Your task to perform on an android device: Check out the best rated electric trimmers on Lowe's Image 0: 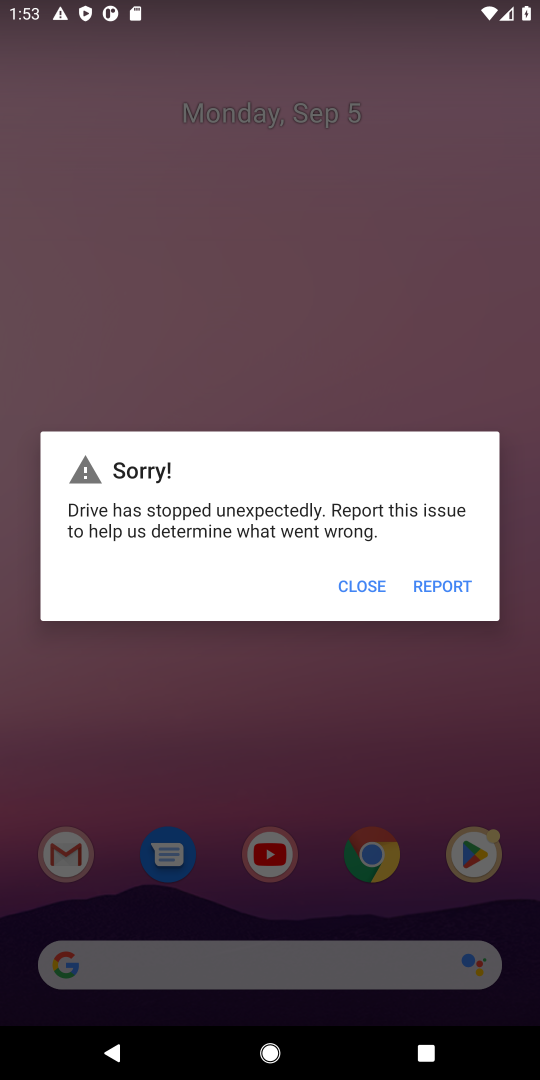
Step 0: press home button
Your task to perform on an android device: Check out the best rated electric trimmers on Lowe's Image 1: 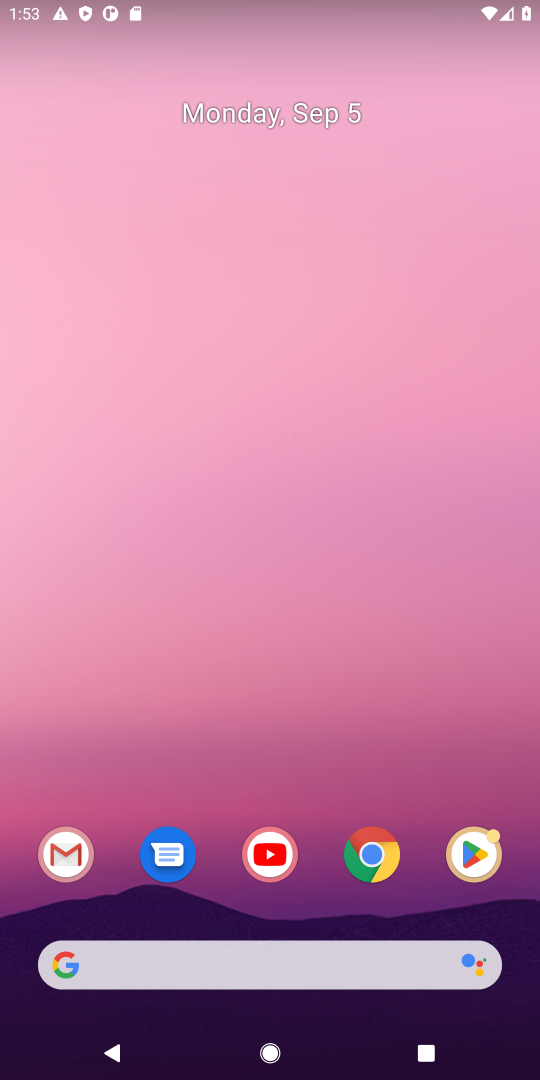
Step 1: click (355, 959)
Your task to perform on an android device: Check out the best rated electric trimmers on Lowe's Image 2: 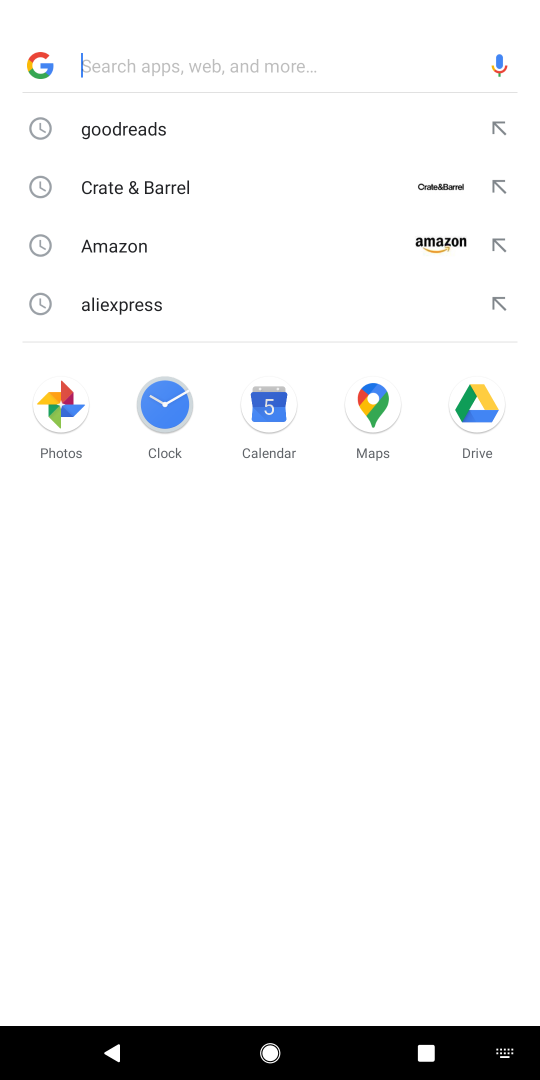
Step 2: type "lowes"
Your task to perform on an android device: Check out the best rated electric trimmers on Lowe's Image 3: 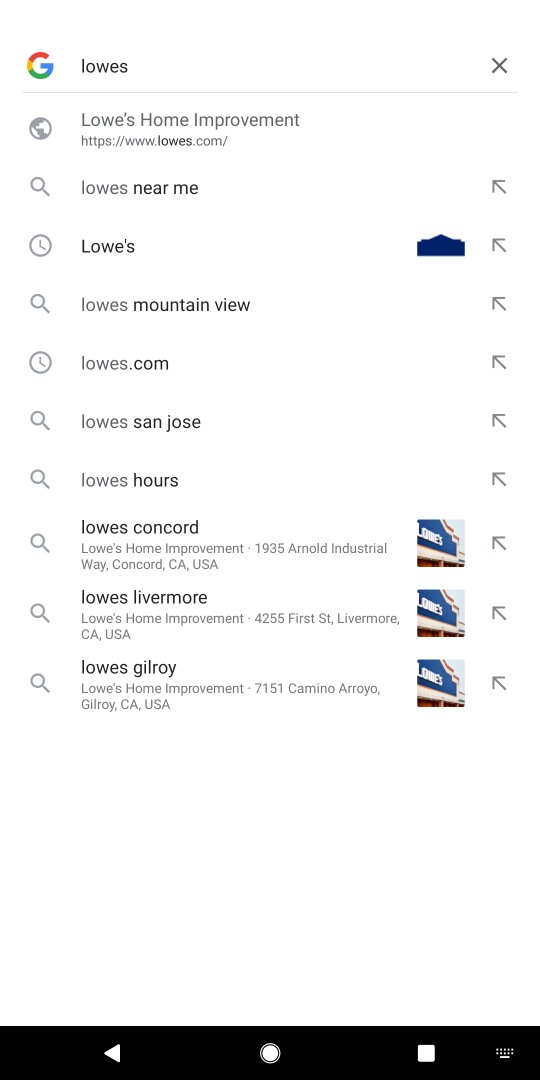
Step 3: press enter
Your task to perform on an android device: Check out the best rated electric trimmers on Lowe's Image 4: 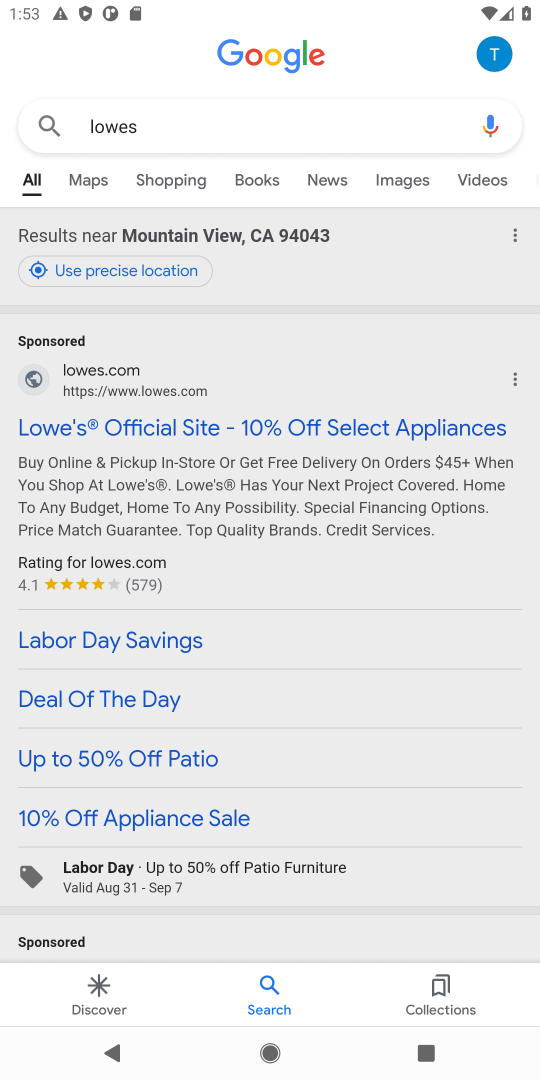
Step 4: click (328, 437)
Your task to perform on an android device: Check out the best rated electric trimmers on Lowe's Image 5: 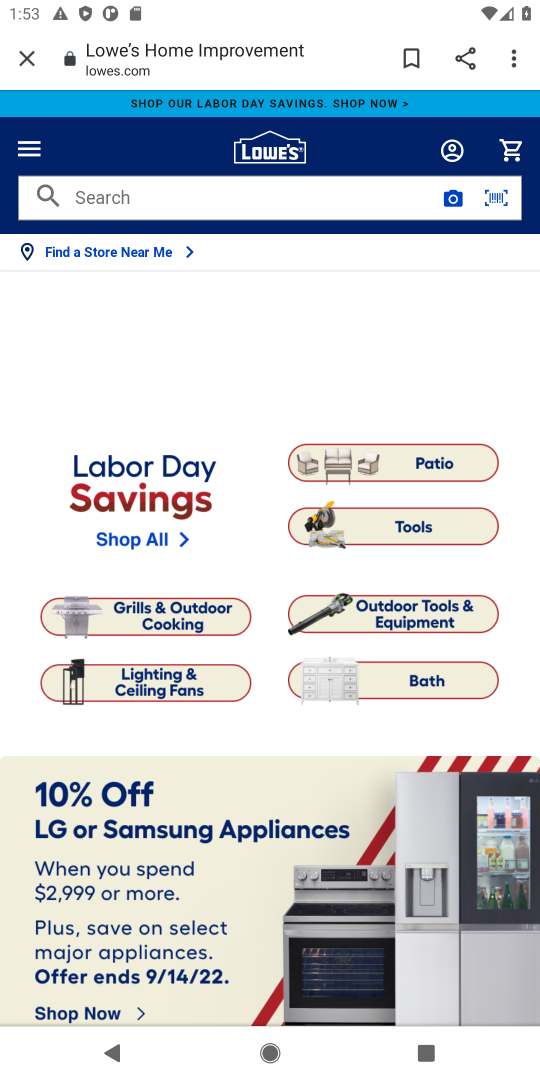
Step 5: click (197, 190)
Your task to perform on an android device: Check out the best rated electric trimmers on Lowe's Image 6: 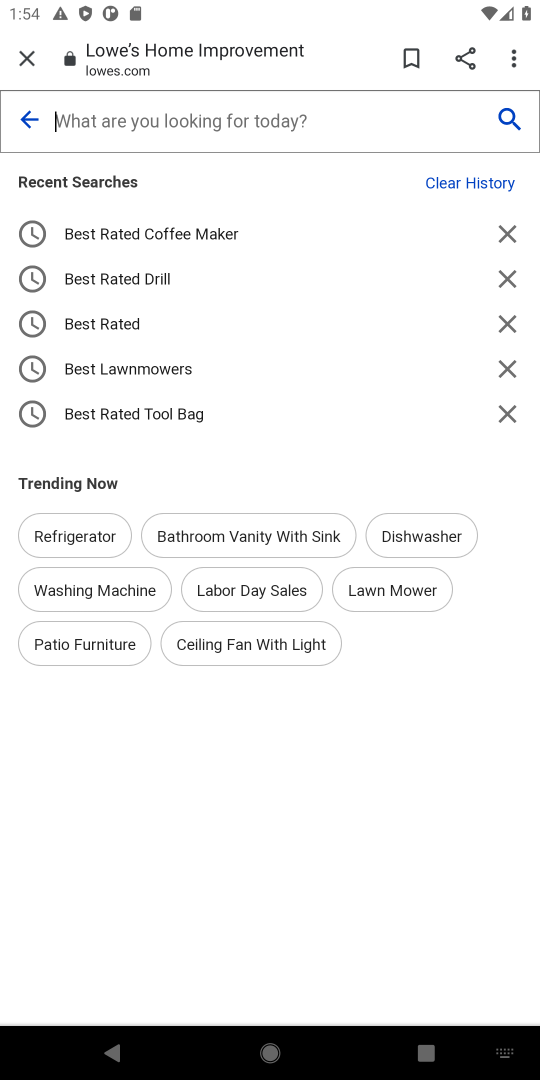
Step 6: press enter
Your task to perform on an android device: Check out the best rated electric trimmers on Lowe's Image 7: 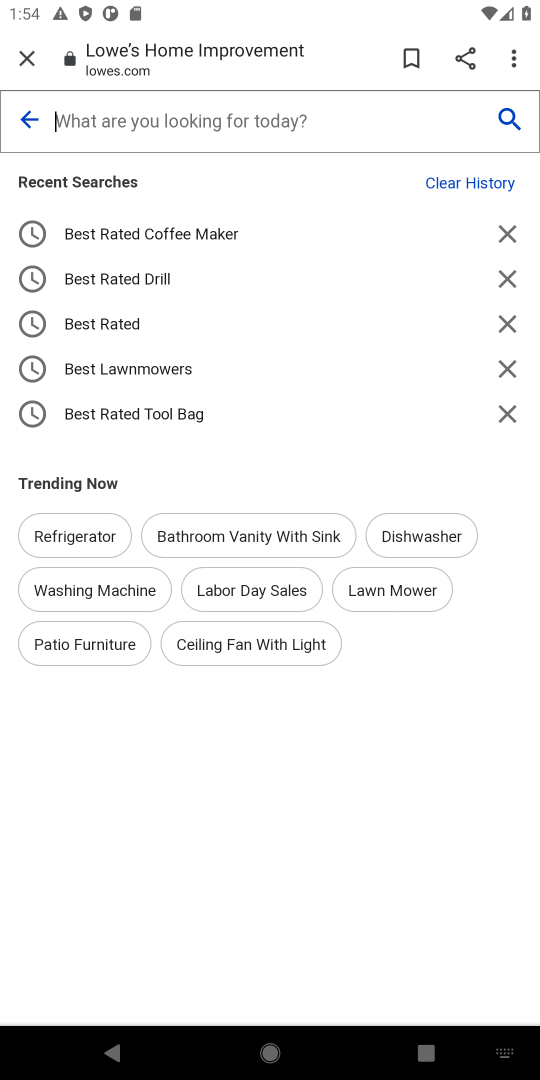
Step 7: type "best rated electric trimmers"
Your task to perform on an android device: Check out the best rated electric trimmers on Lowe's Image 8: 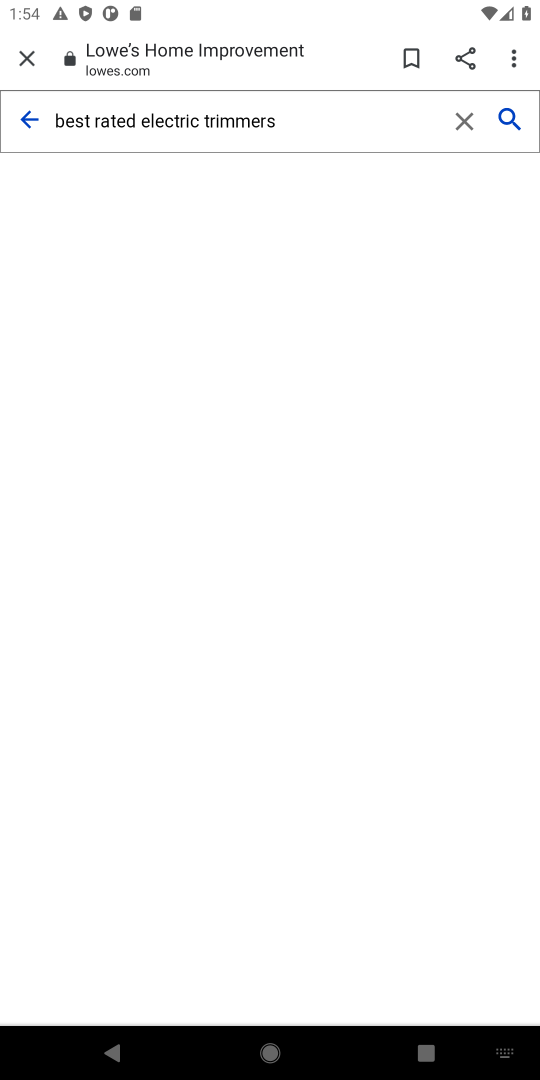
Step 8: click (499, 123)
Your task to perform on an android device: Check out the best rated electric trimmers on Lowe's Image 9: 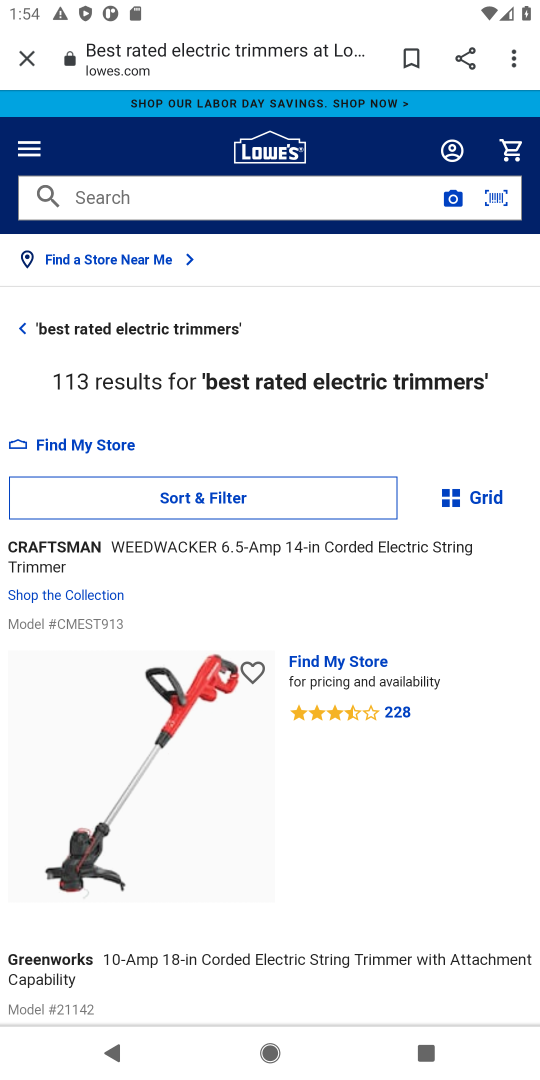
Step 9: task complete